Your task to perform on an android device: Show the shopping cart on ebay.com. Search for "dell xps" on ebay.com, select the first entry, and add it to the cart. Image 0: 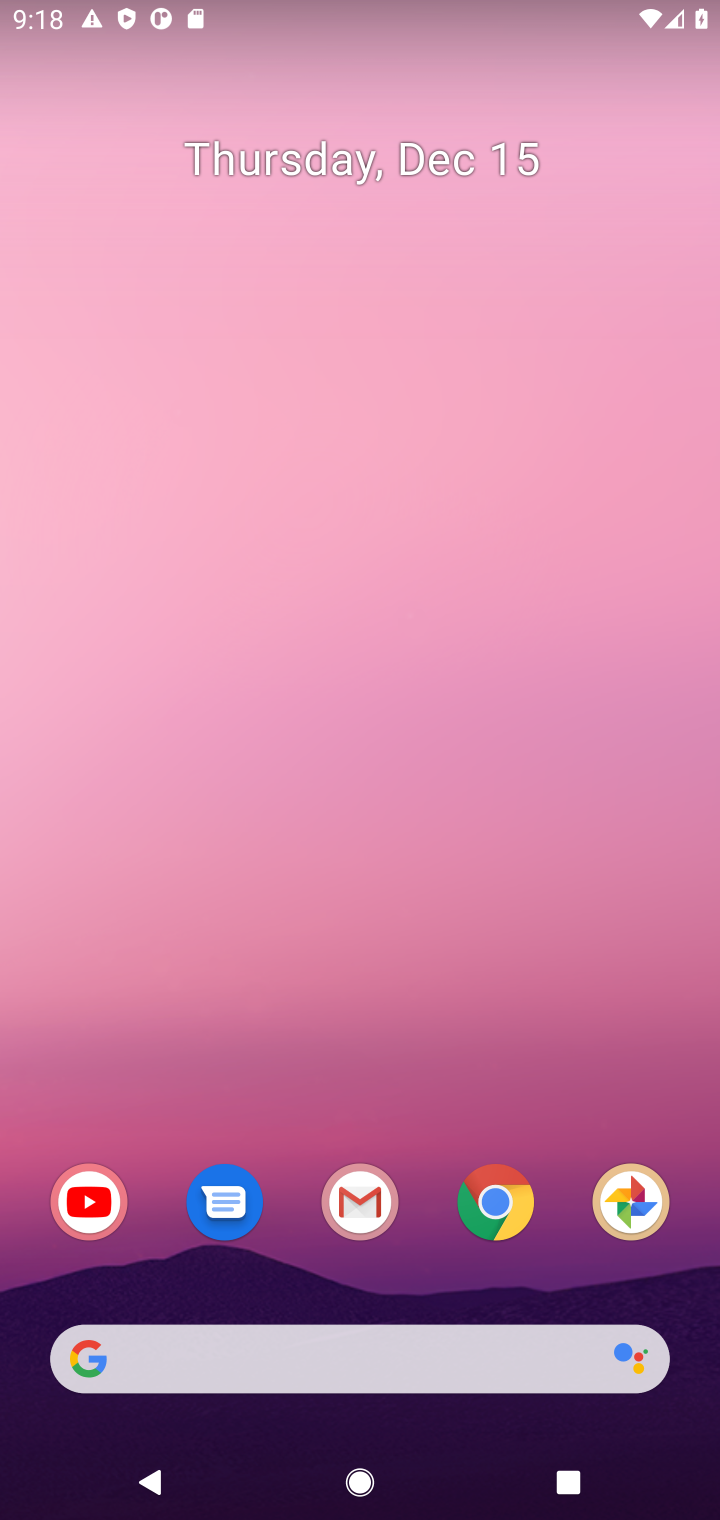
Step 0: click (507, 1213)
Your task to perform on an android device: Show the shopping cart on ebay.com. Search for "dell xps" on ebay.com, select the first entry, and add it to the cart. Image 1: 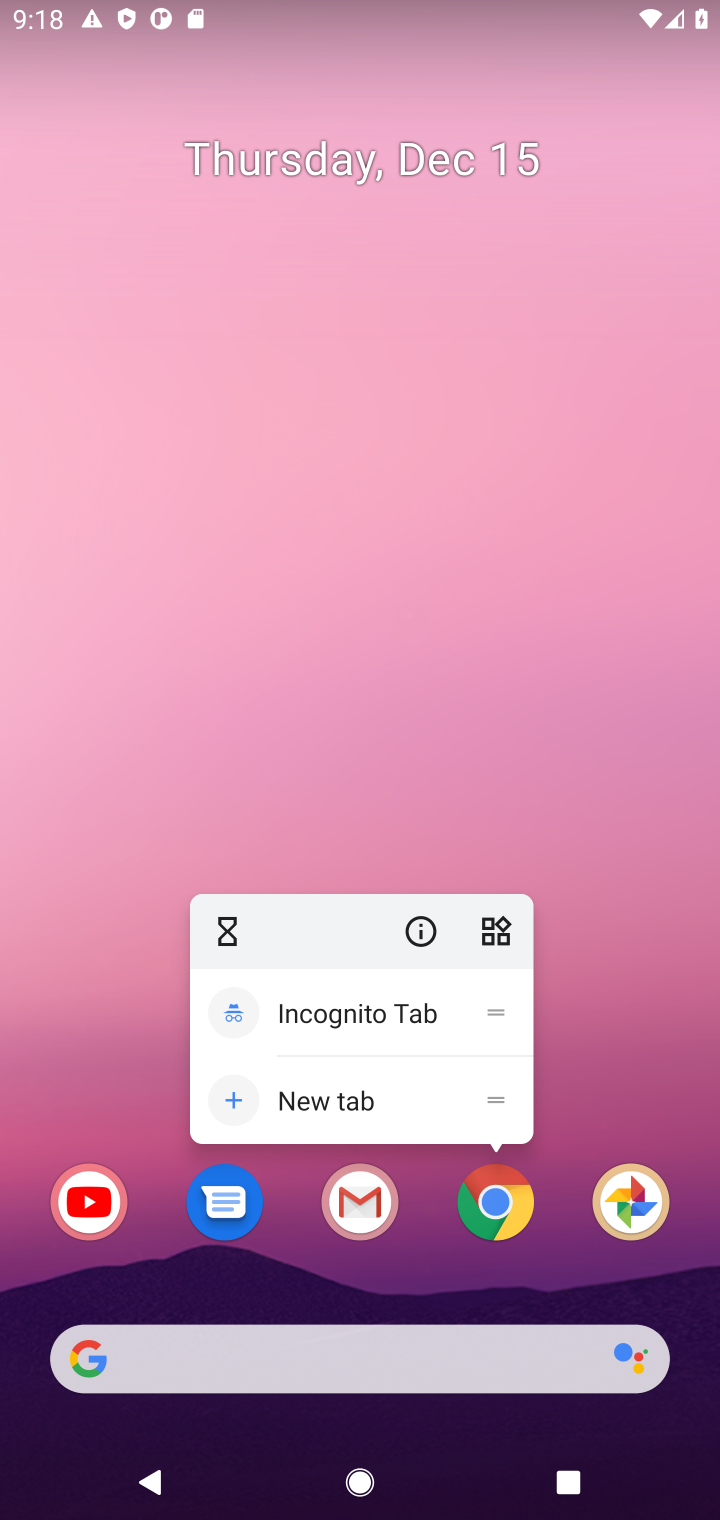
Step 1: click (494, 1219)
Your task to perform on an android device: Show the shopping cart on ebay.com. Search for "dell xps" on ebay.com, select the first entry, and add it to the cart. Image 2: 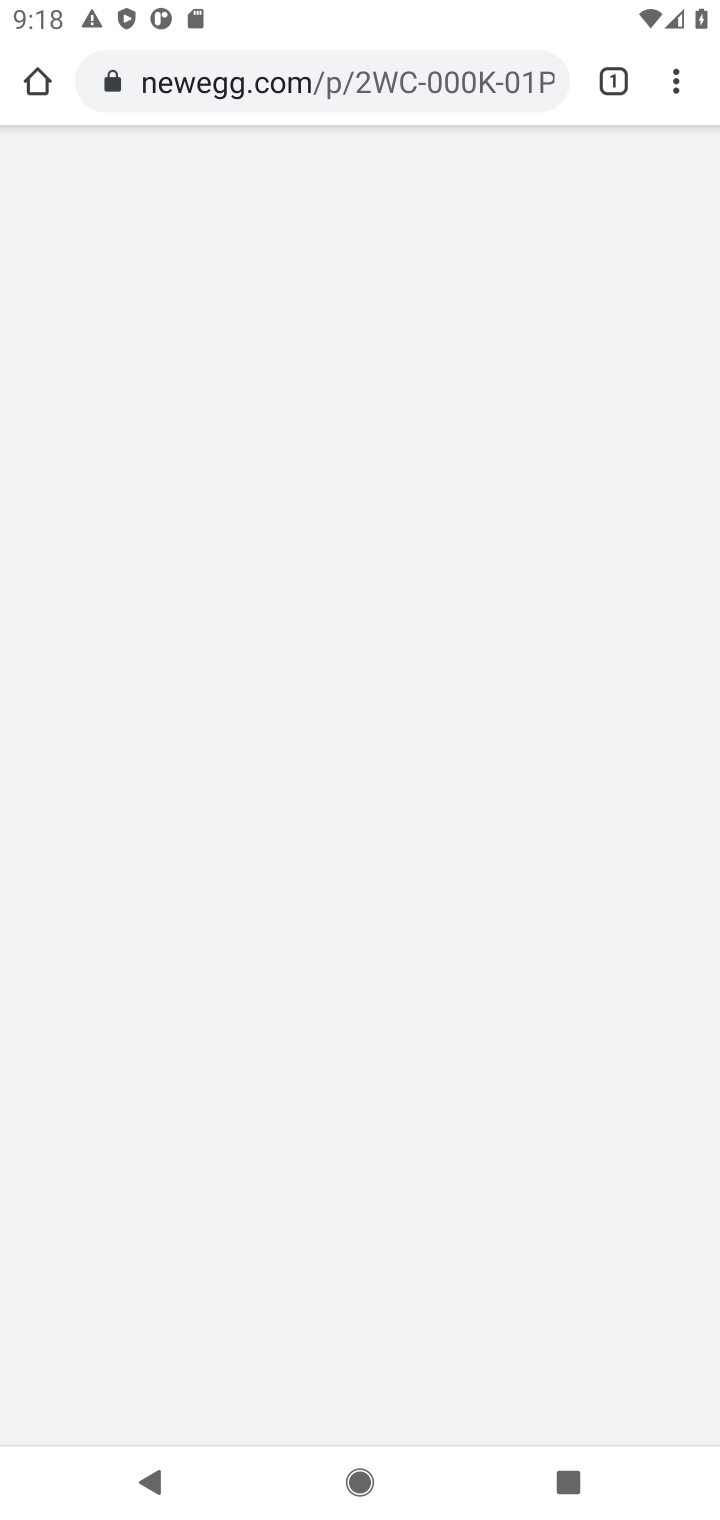
Step 2: click (260, 81)
Your task to perform on an android device: Show the shopping cart on ebay.com. Search for "dell xps" on ebay.com, select the first entry, and add it to the cart. Image 3: 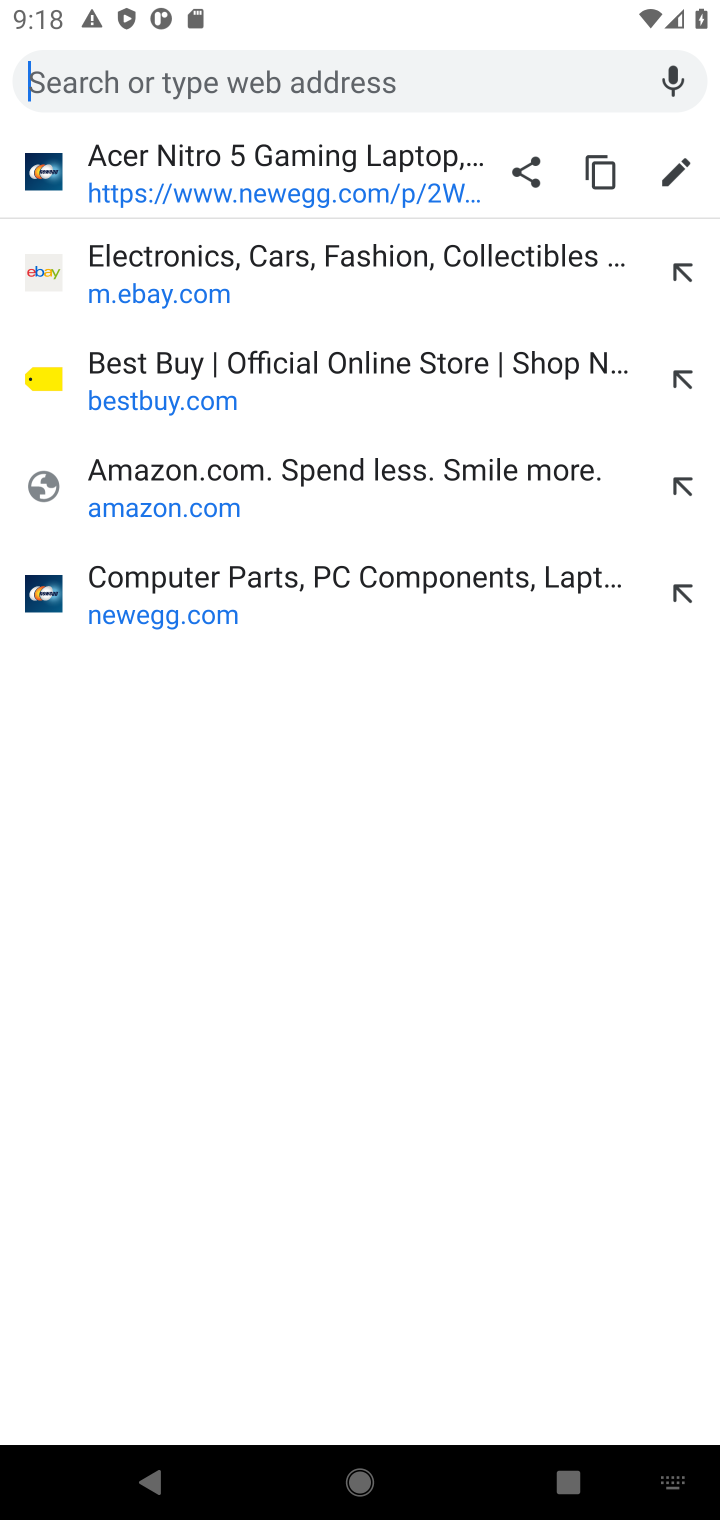
Step 3: click (145, 290)
Your task to perform on an android device: Show the shopping cart on ebay.com. Search for "dell xps" on ebay.com, select the first entry, and add it to the cart. Image 4: 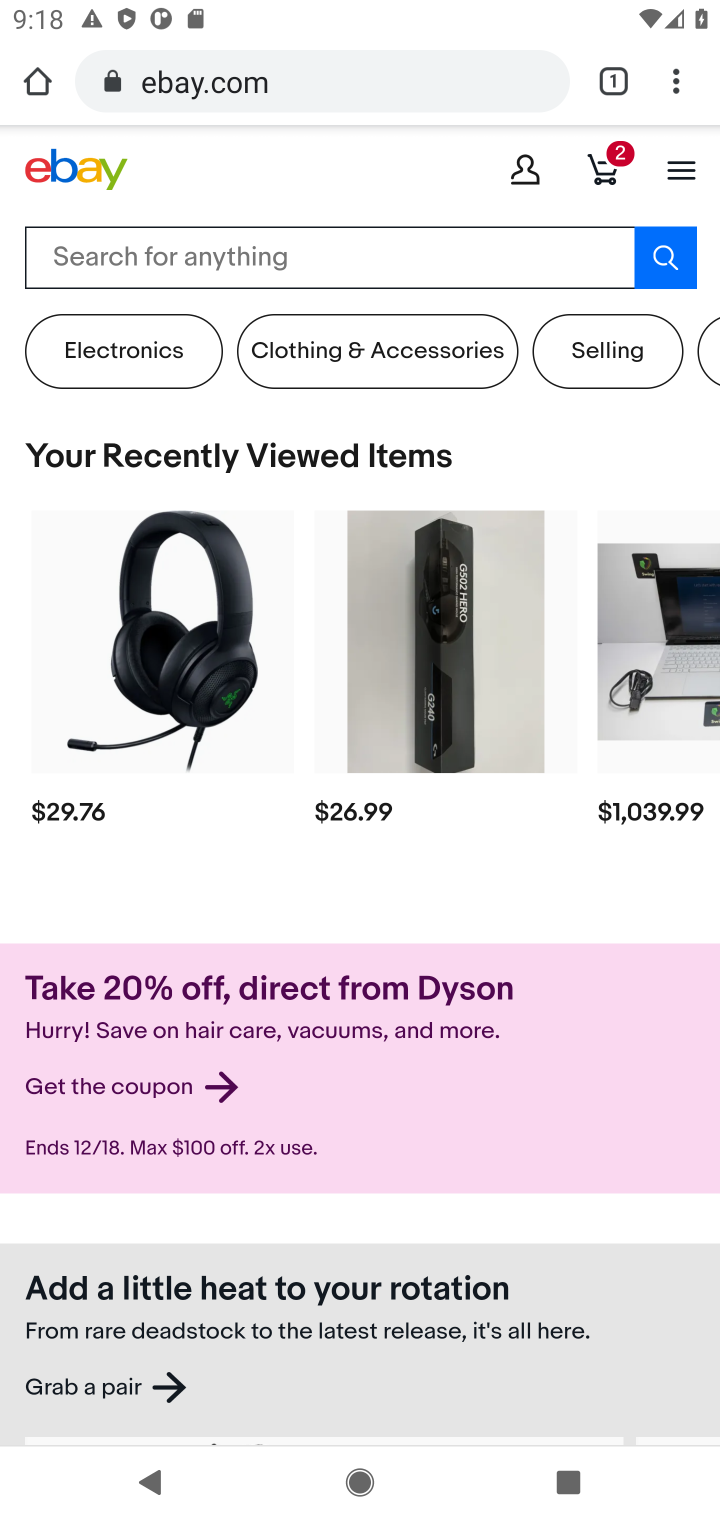
Step 4: click (599, 173)
Your task to perform on an android device: Show the shopping cart on ebay.com. Search for "dell xps" on ebay.com, select the first entry, and add it to the cart. Image 5: 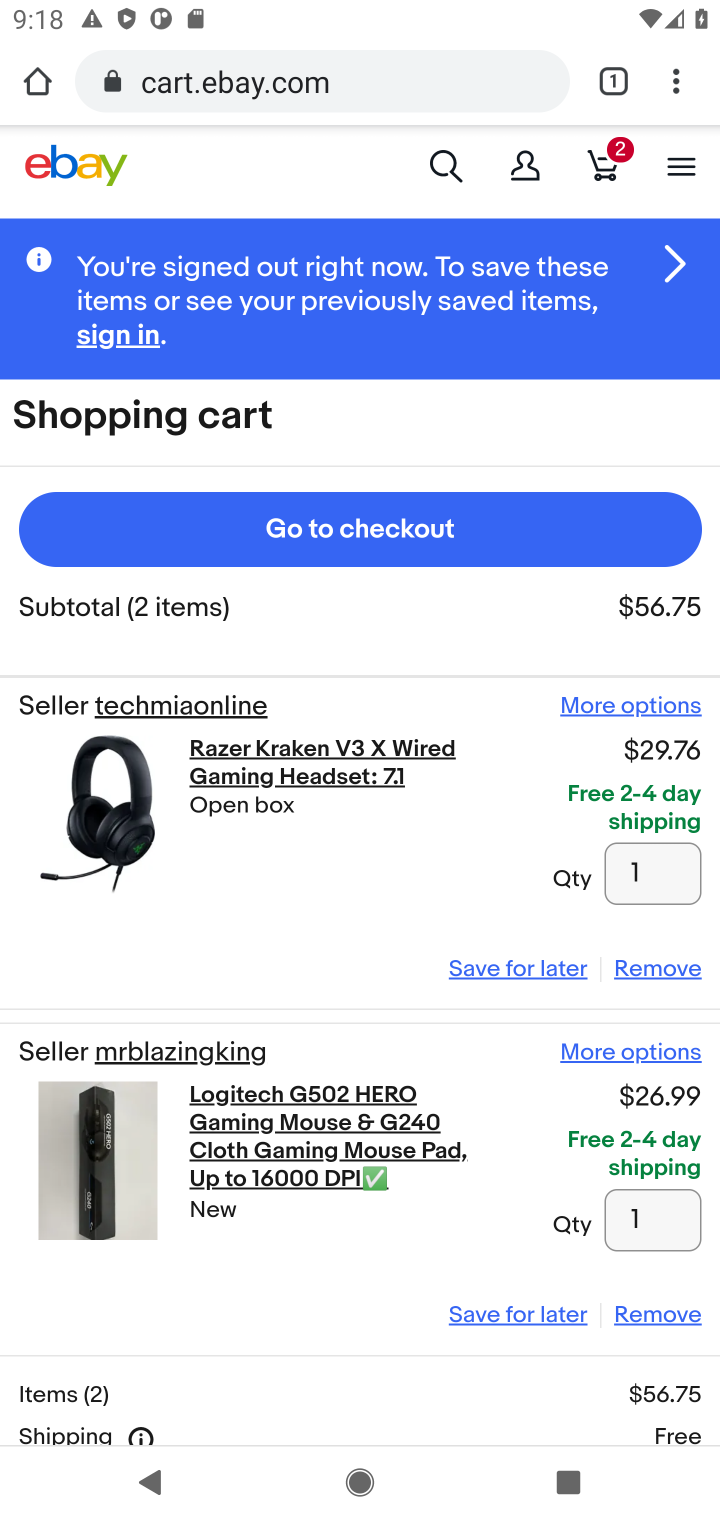
Step 5: click (442, 158)
Your task to perform on an android device: Show the shopping cart on ebay.com. Search for "dell xps" on ebay.com, select the first entry, and add it to the cart. Image 6: 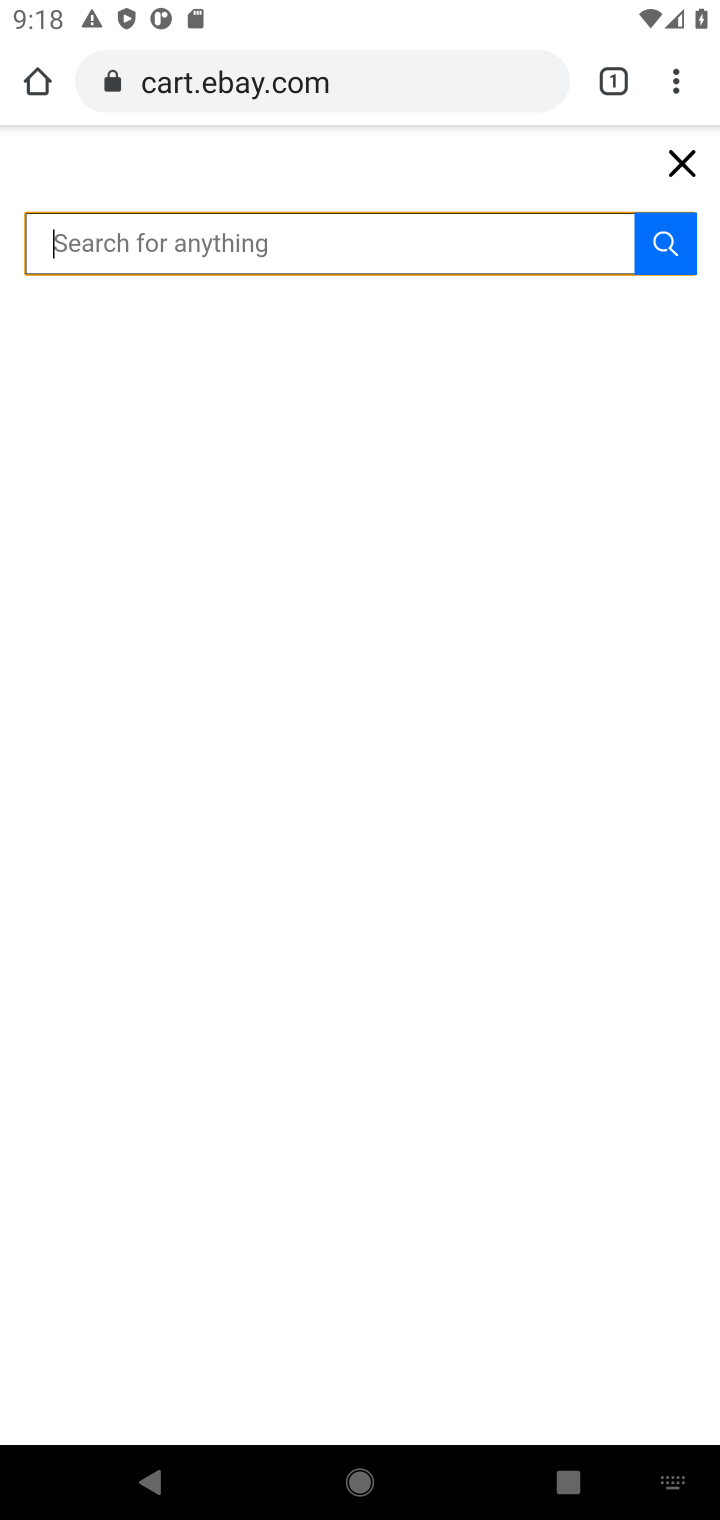
Step 6: type "dell xps"
Your task to perform on an android device: Show the shopping cart on ebay.com. Search for "dell xps" on ebay.com, select the first entry, and add it to the cart. Image 7: 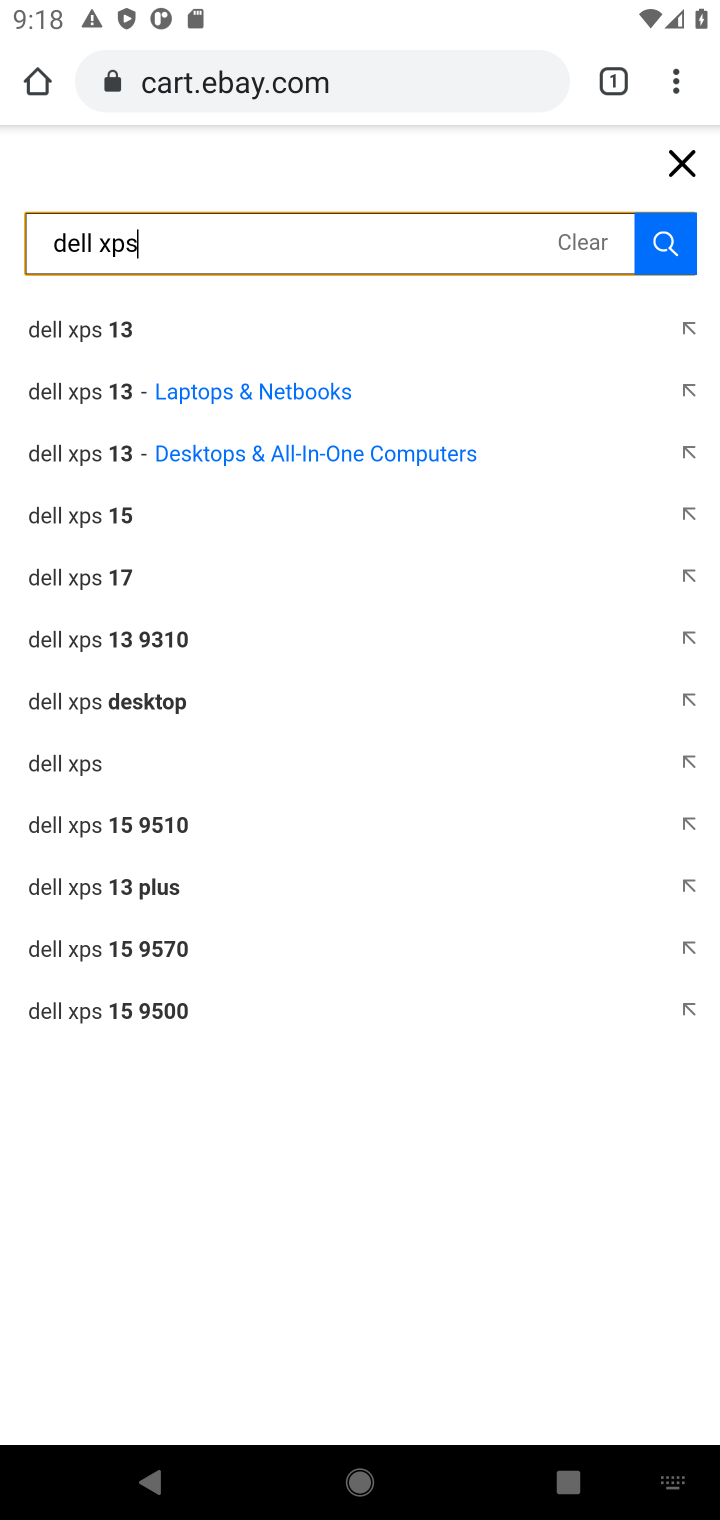
Step 7: click (54, 765)
Your task to perform on an android device: Show the shopping cart on ebay.com. Search for "dell xps" on ebay.com, select the first entry, and add it to the cart. Image 8: 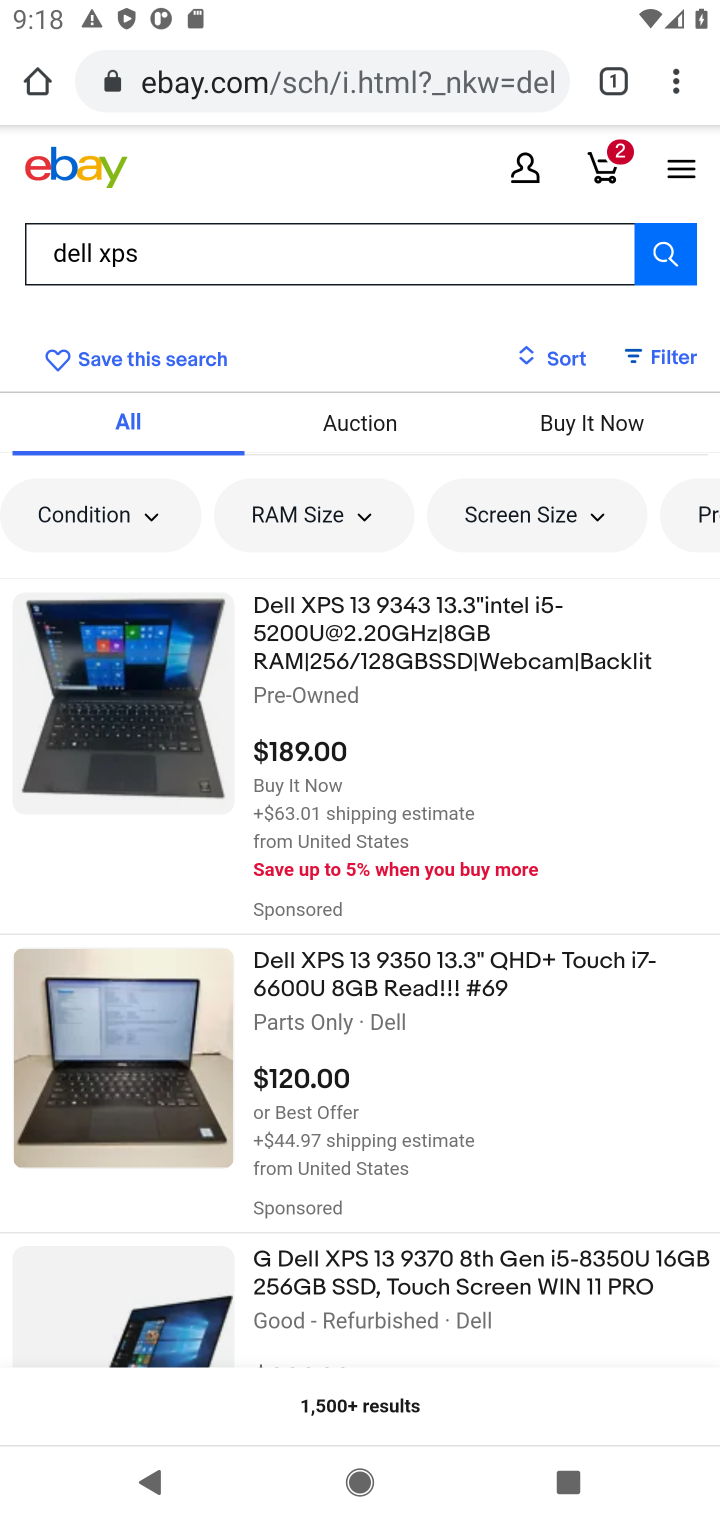
Step 8: click (354, 669)
Your task to perform on an android device: Show the shopping cart on ebay.com. Search for "dell xps" on ebay.com, select the first entry, and add it to the cart. Image 9: 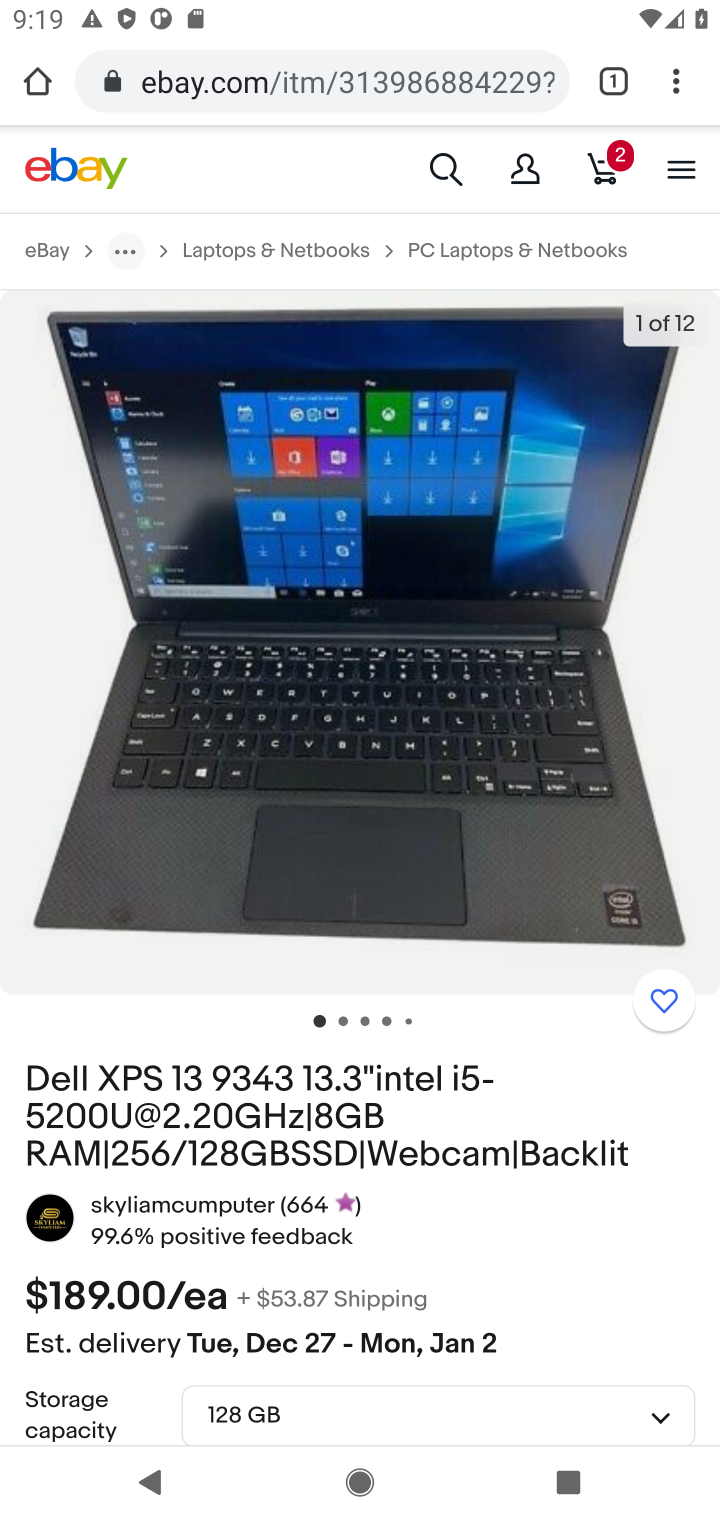
Step 9: drag from (350, 968) to (328, 493)
Your task to perform on an android device: Show the shopping cart on ebay.com. Search for "dell xps" on ebay.com, select the first entry, and add it to the cart. Image 10: 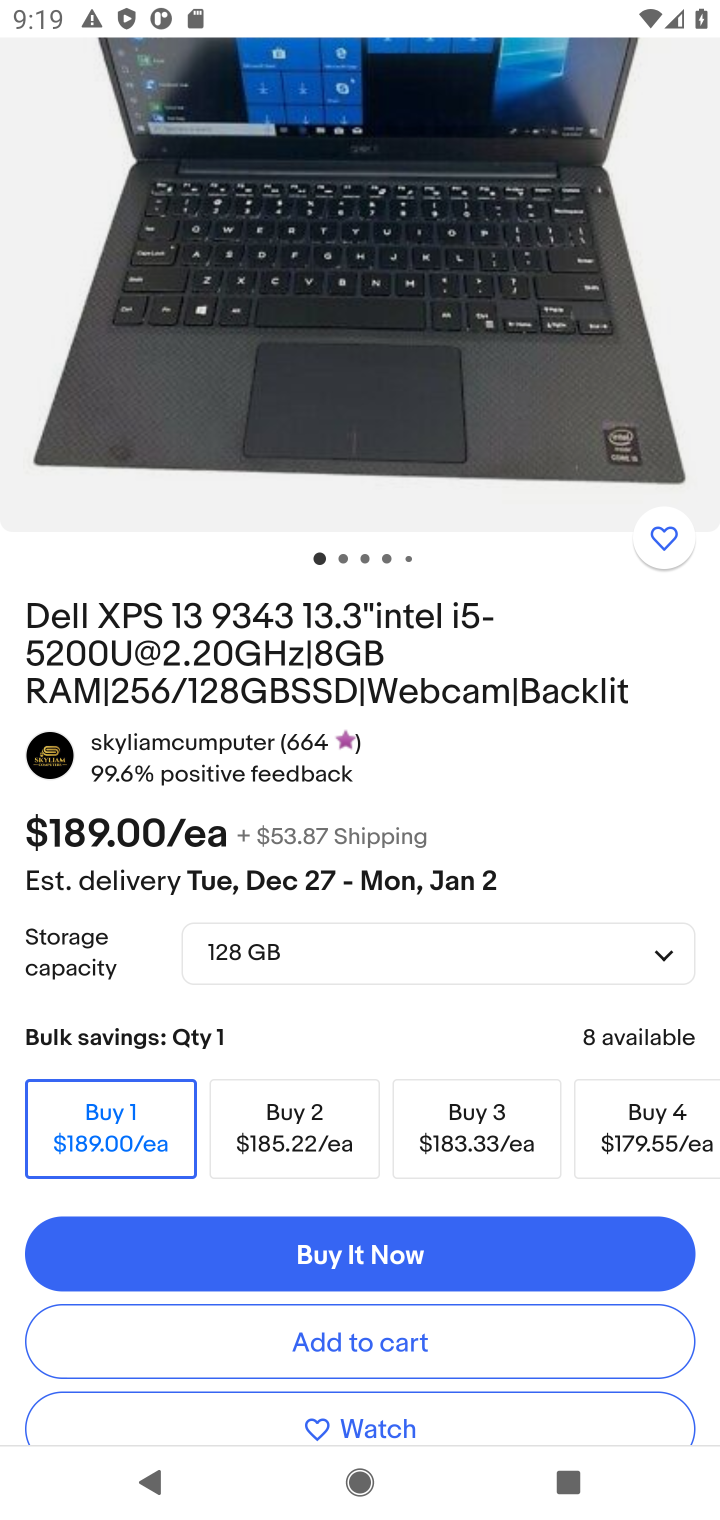
Step 10: click (328, 1334)
Your task to perform on an android device: Show the shopping cart on ebay.com. Search for "dell xps" on ebay.com, select the first entry, and add it to the cart. Image 11: 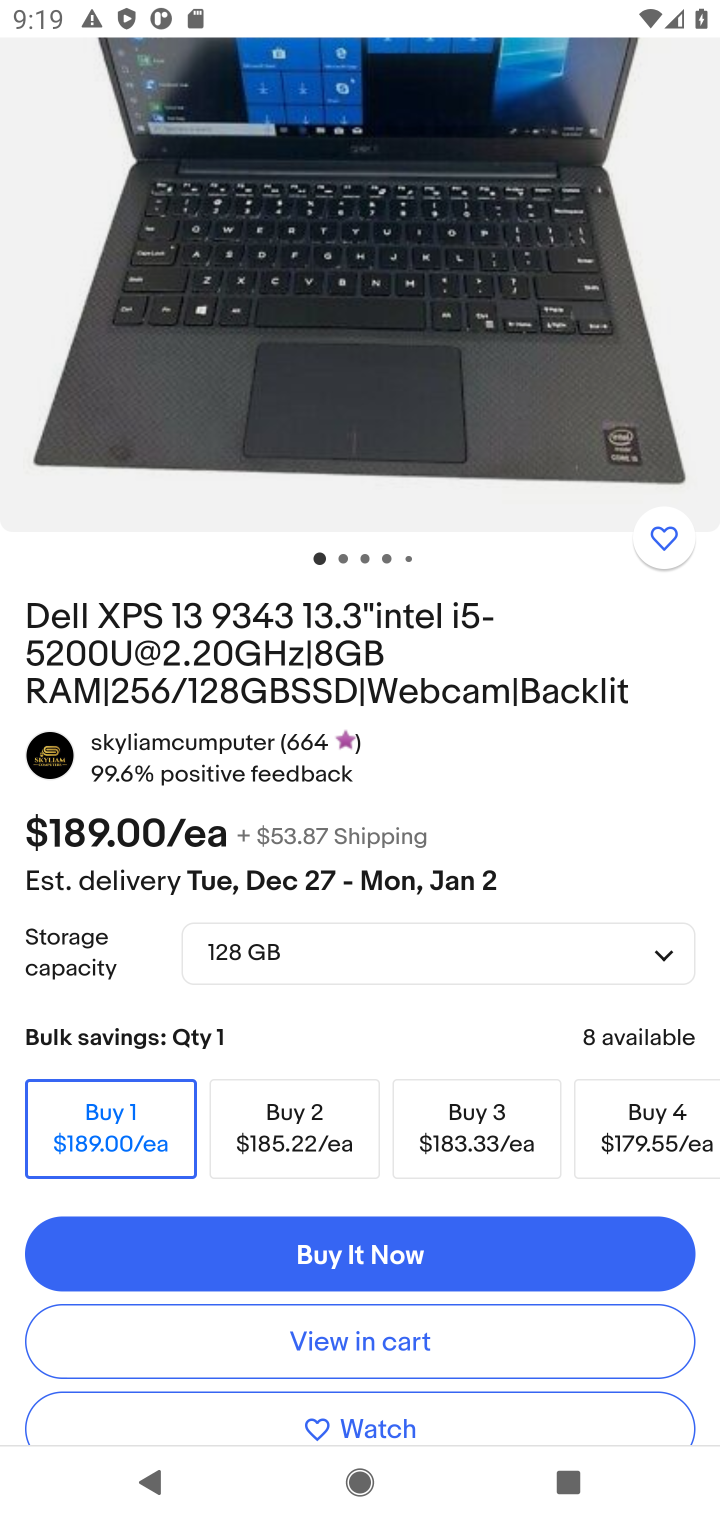
Step 11: task complete